Your task to perform on an android device: check data usage Image 0: 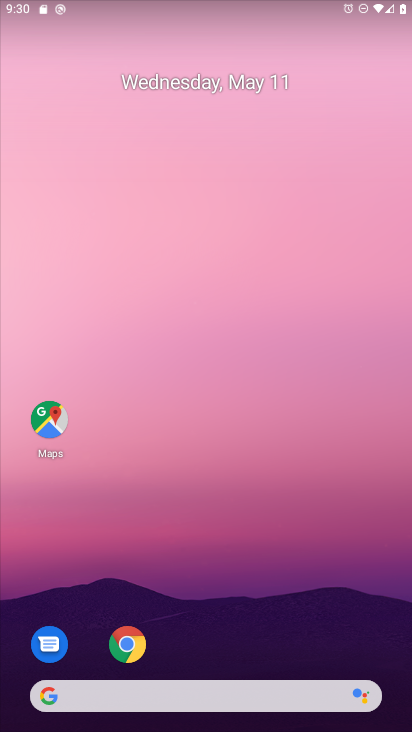
Step 0: drag from (217, 581) to (224, 41)
Your task to perform on an android device: check data usage Image 1: 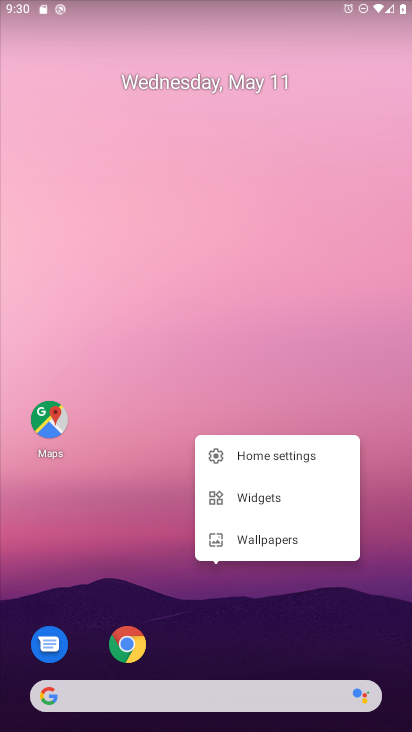
Step 1: click (161, 537)
Your task to perform on an android device: check data usage Image 2: 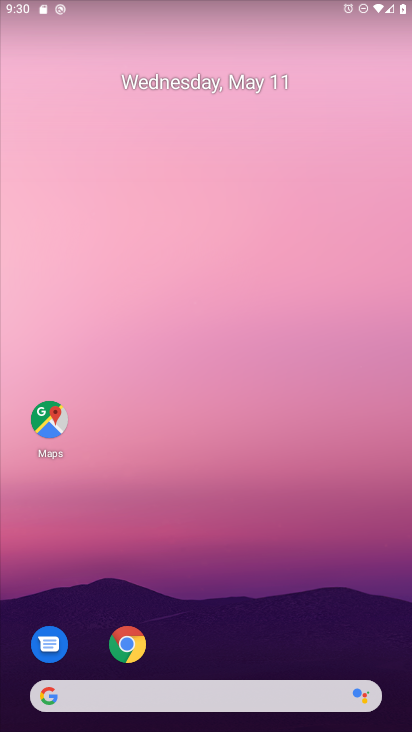
Step 2: drag from (173, 562) to (181, 209)
Your task to perform on an android device: check data usage Image 3: 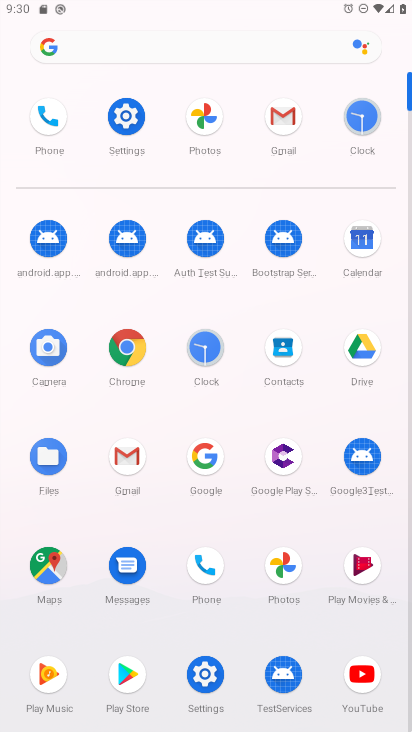
Step 3: click (128, 109)
Your task to perform on an android device: check data usage Image 4: 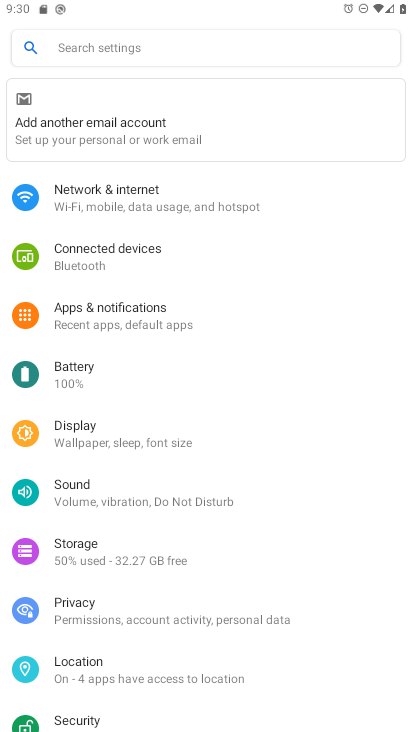
Step 4: click (109, 187)
Your task to perform on an android device: check data usage Image 5: 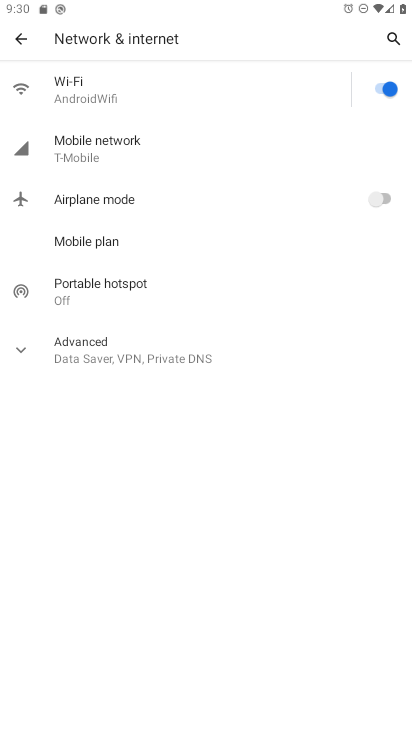
Step 5: click (106, 142)
Your task to perform on an android device: check data usage Image 6: 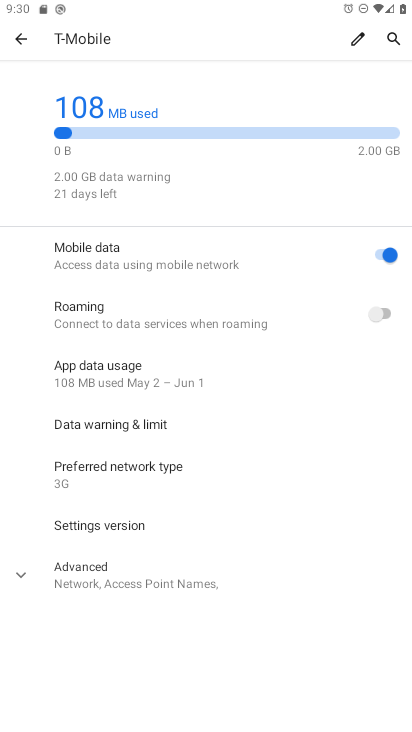
Step 6: task complete